Your task to perform on an android device: turn notification dots on Image 0: 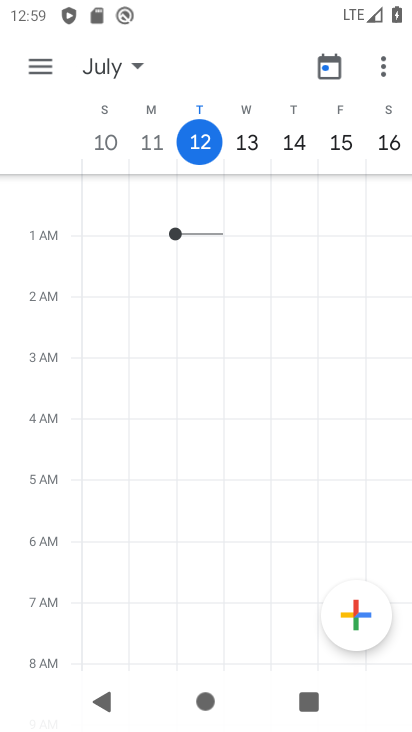
Step 0: press home button
Your task to perform on an android device: turn notification dots on Image 1: 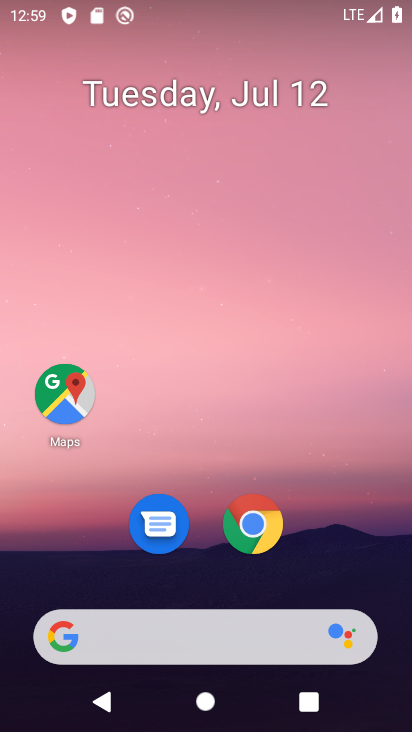
Step 1: drag from (315, 511) to (335, 0)
Your task to perform on an android device: turn notification dots on Image 2: 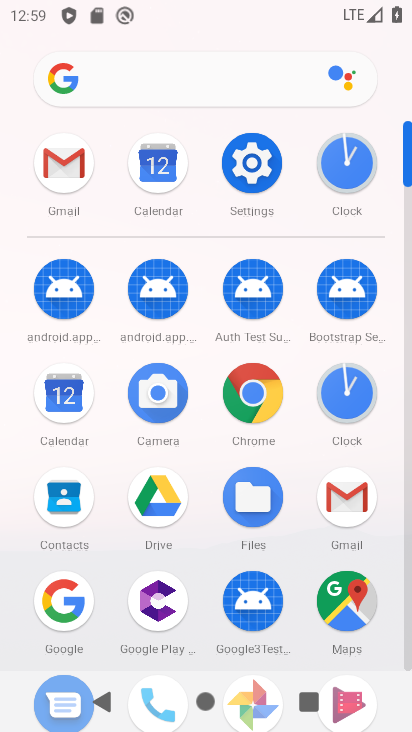
Step 2: click (250, 164)
Your task to perform on an android device: turn notification dots on Image 3: 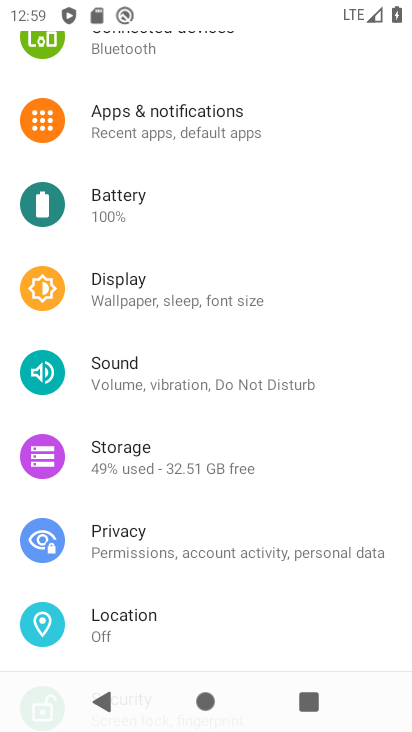
Step 3: drag from (220, 236) to (226, 588)
Your task to perform on an android device: turn notification dots on Image 4: 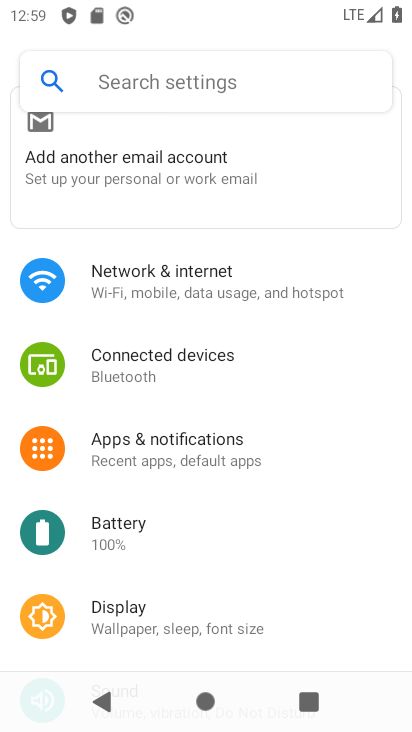
Step 4: click (202, 450)
Your task to perform on an android device: turn notification dots on Image 5: 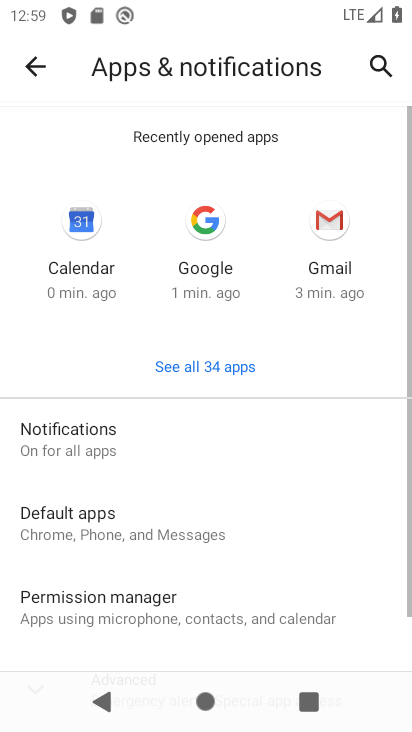
Step 5: drag from (257, 529) to (274, 161)
Your task to perform on an android device: turn notification dots on Image 6: 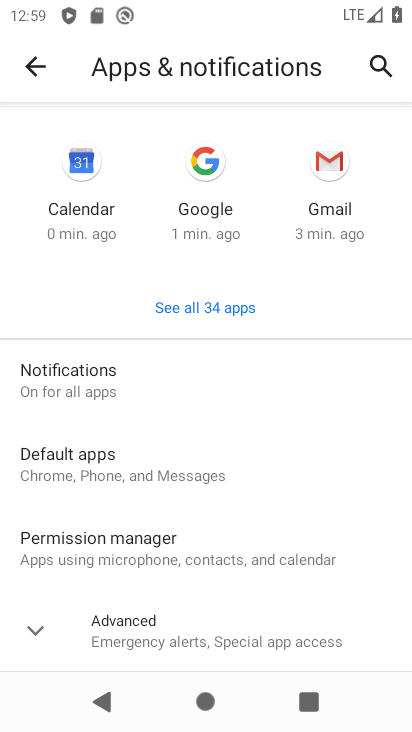
Step 6: click (99, 374)
Your task to perform on an android device: turn notification dots on Image 7: 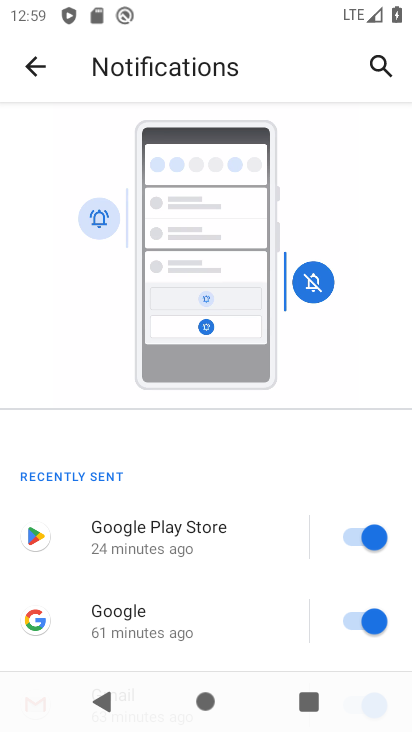
Step 7: drag from (201, 560) to (209, 58)
Your task to perform on an android device: turn notification dots on Image 8: 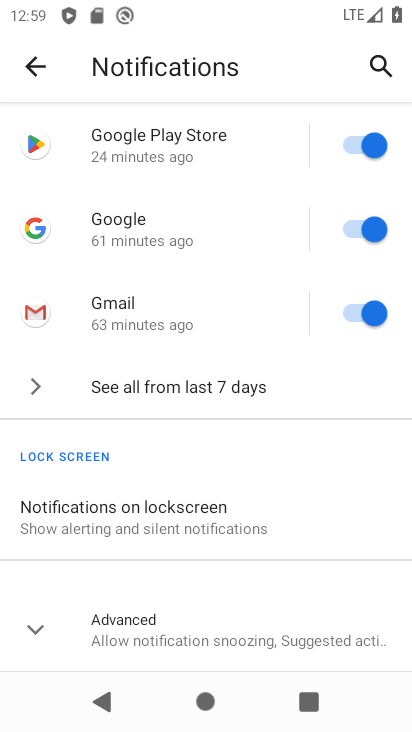
Step 8: click (31, 626)
Your task to perform on an android device: turn notification dots on Image 9: 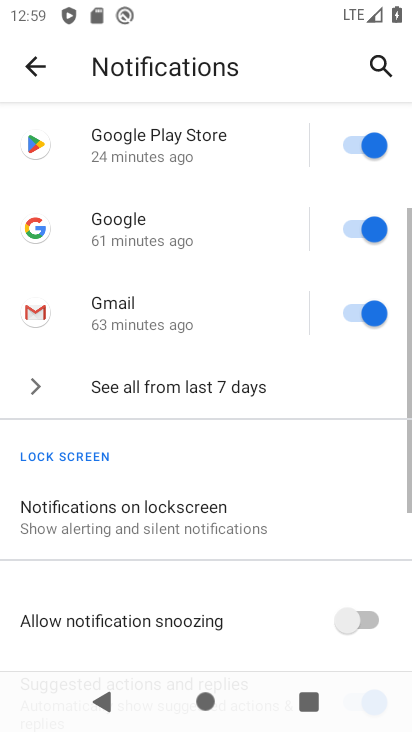
Step 9: task complete